Your task to perform on an android device: Go to Amazon Image 0: 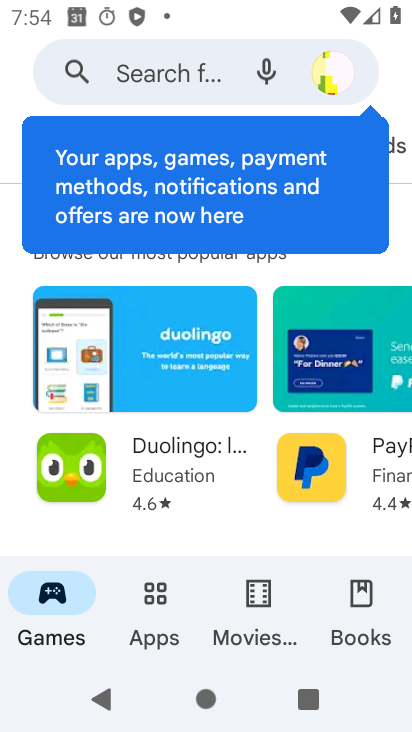
Step 0: press home button
Your task to perform on an android device: Go to Amazon Image 1: 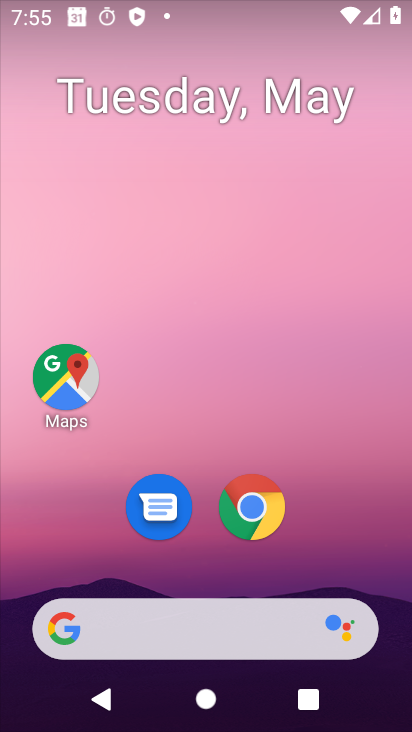
Step 1: drag from (207, 568) to (258, 171)
Your task to perform on an android device: Go to Amazon Image 2: 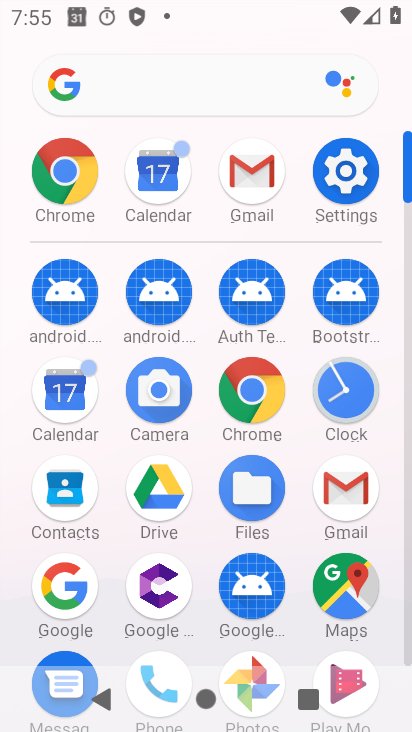
Step 2: click (52, 176)
Your task to perform on an android device: Go to Amazon Image 3: 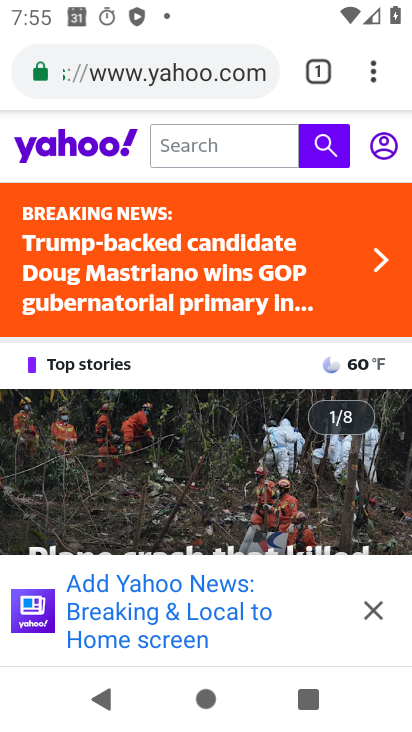
Step 3: click (169, 79)
Your task to perform on an android device: Go to Amazon Image 4: 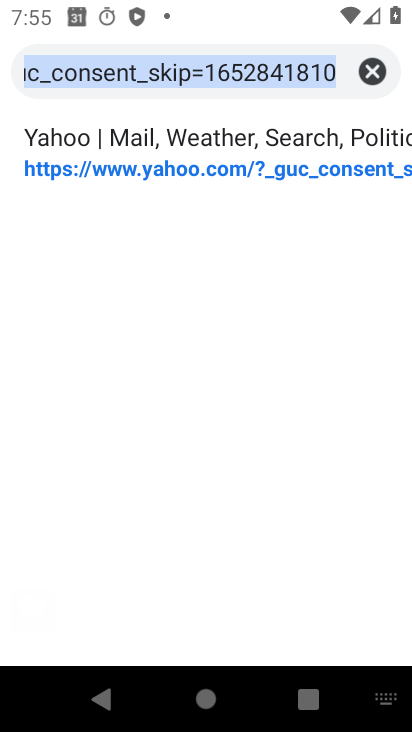
Step 4: type "amazon"
Your task to perform on an android device: Go to Amazon Image 5: 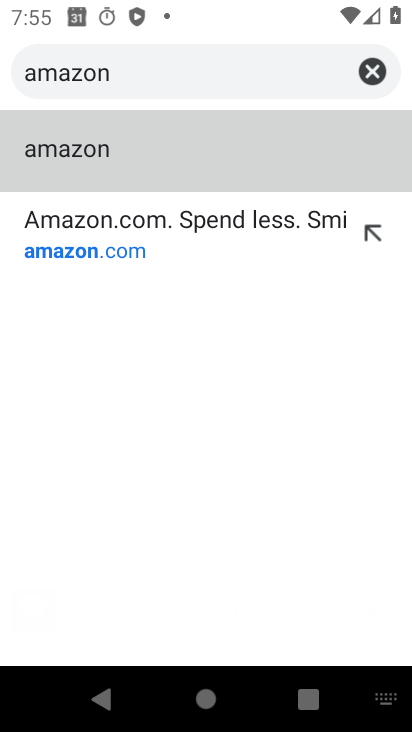
Step 5: click (115, 140)
Your task to perform on an android device: Go to Amazon Image 6: 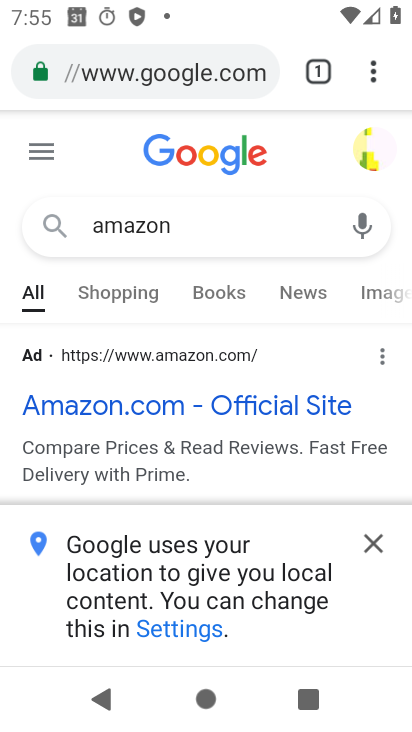
Step 6: click (67, 405)
Your task to perform on an android device: Go to Amazon Image 7: 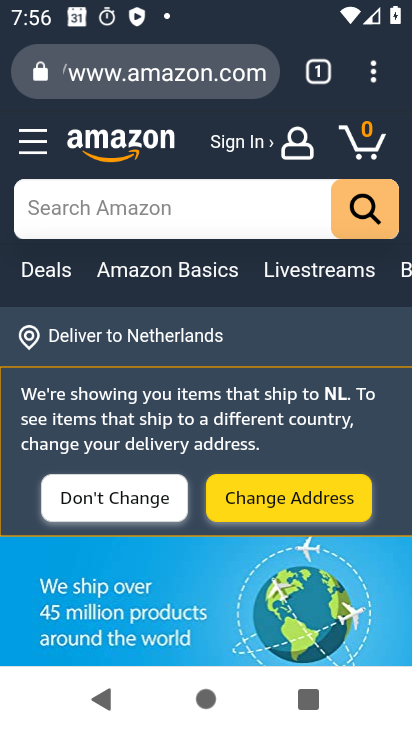
Step 7: task complete